Your task to perform on an android device: Open sound settings Image 0: 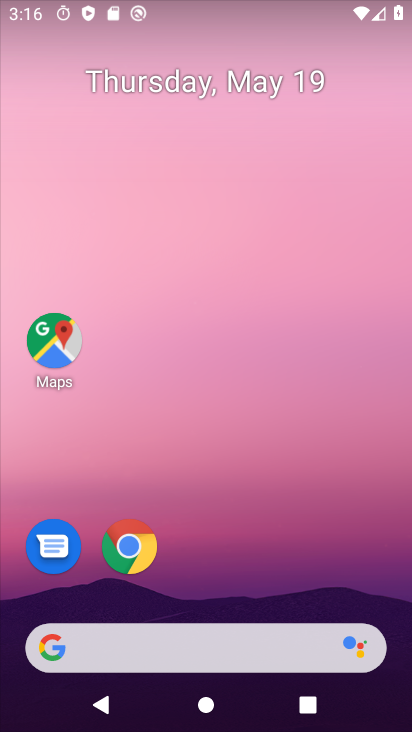
Step 0: press home button
Your task to perform on an android device: Open sound settings Image 1: 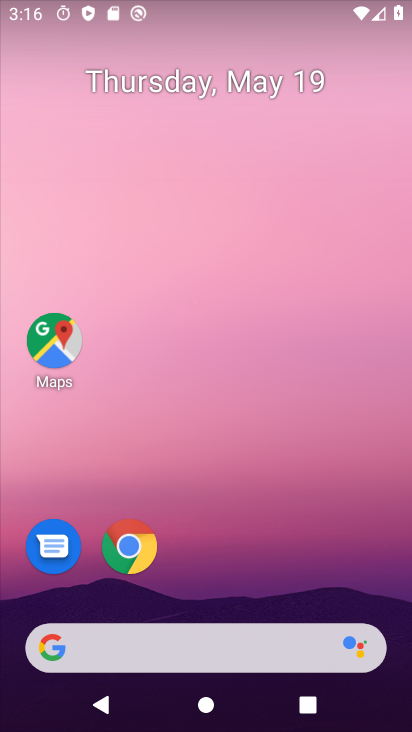
Step 1: drag from (224, 600) to (284, 61)
Your task to perform on an android device: Open sound settings Image 2: 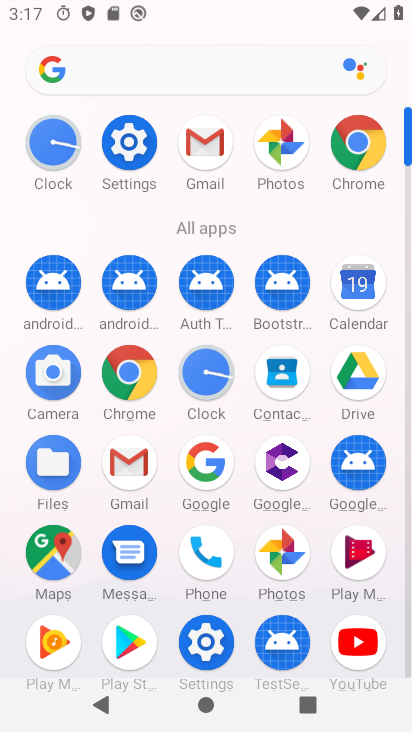
Step 2: click (127, 140)
Your task to perform on an android device: Open sound settings Image 3: 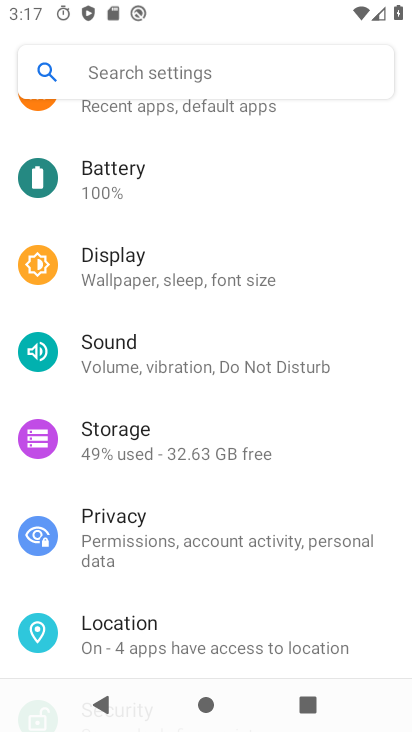
Step 3: click (155, 347)
Your task to perform on an android device: Open sound settings Image 4: 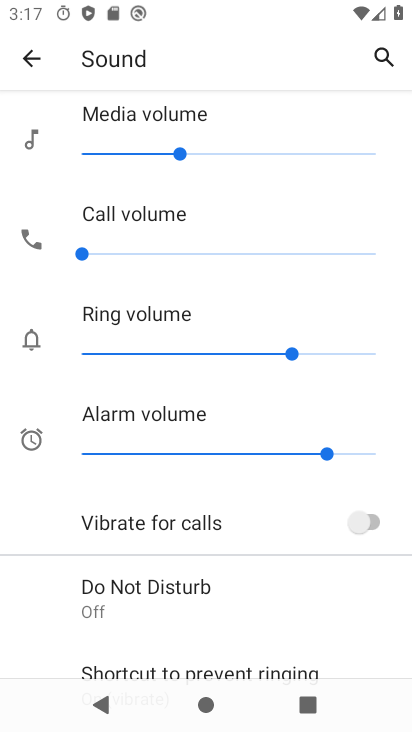
Step 4: drag from (234, 635) to (268, 228)
Your task to perform on an android device: Open sound settings Image 5: 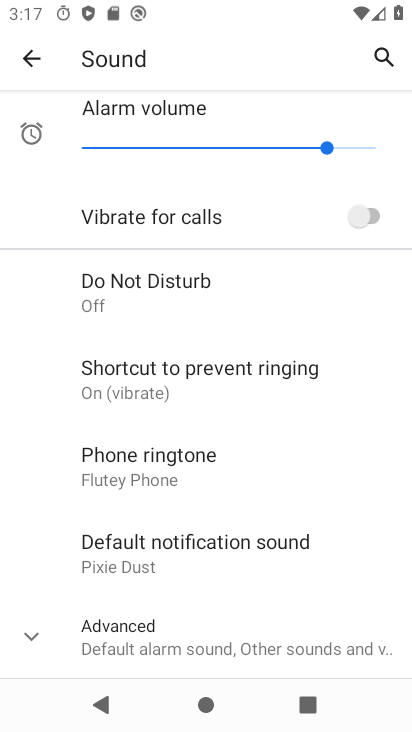
Step 5: click (39, 629)
Your task to perform on an android device: Open sound settings Image 6: 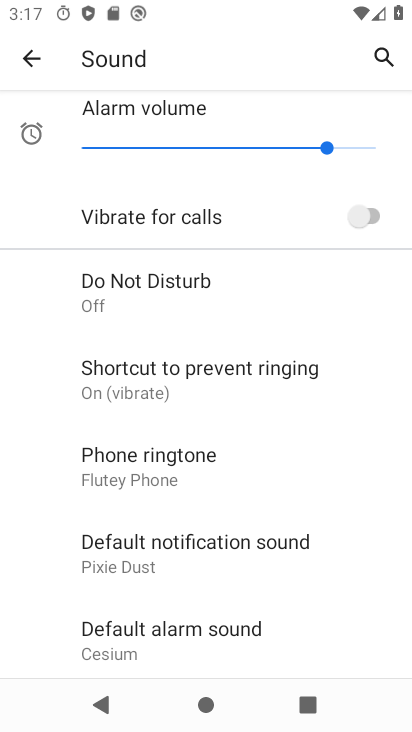
Step 6: task complete